Your task to perform on an android device: turn off notifications settings in the gmail app Image 0: 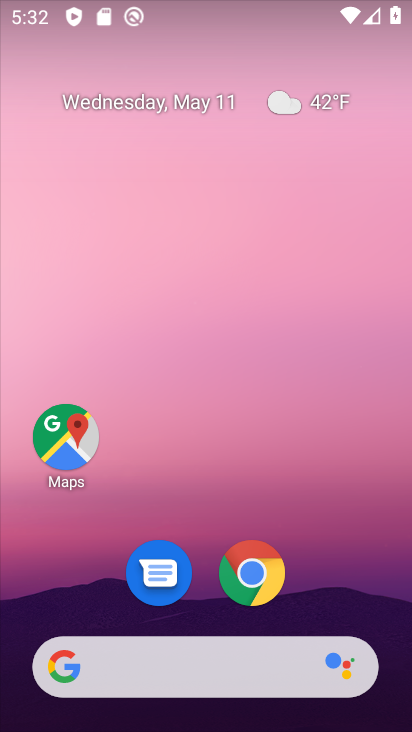
Step 0: drag from (316, 618) to (291, 238)
Your task to perform on an android device: turn off notifications settings in the gmail app Image 1: 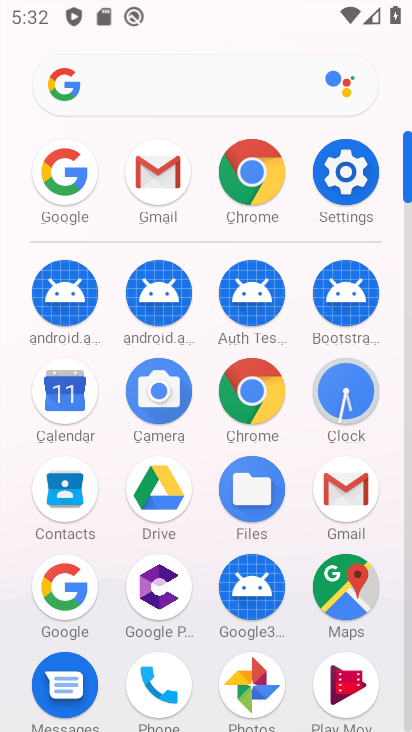
Step 1: click (336, 491)
Your task to perform on an android device: turn off notifications settings in the gmail app Image 2: 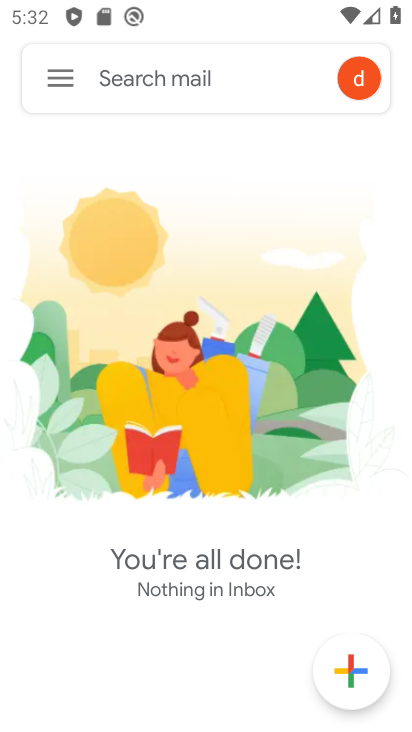
Step 2: click (60, 82)
Your task to perform on an android device: turn off notifications settings in the gmail app Image 3: 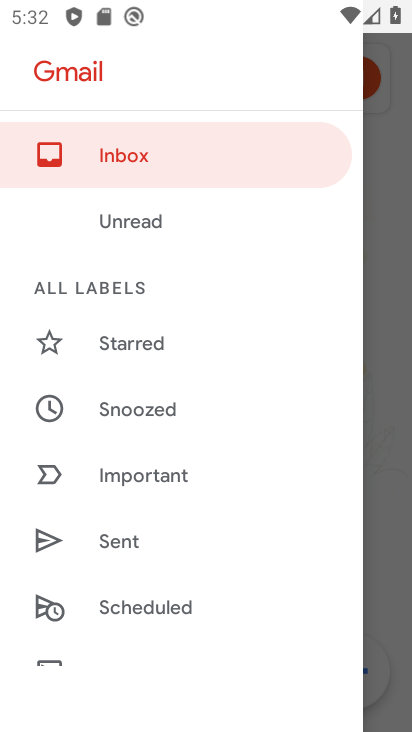
Step 3: drag from (181, 590) to (198, 255)
Your task to perform on an android device: turn off notifications settings in the gmail app Image 4: 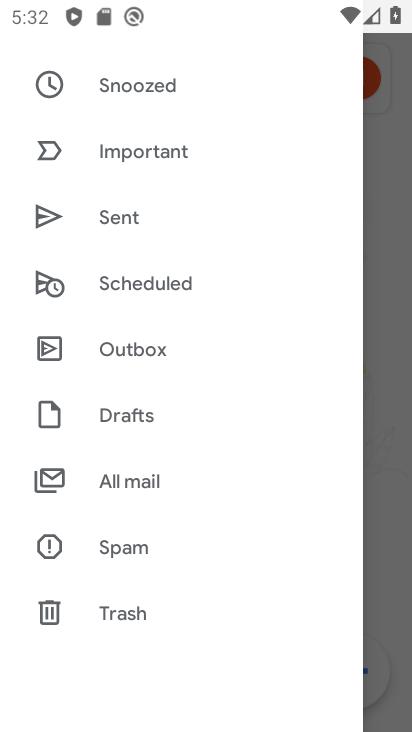
Step 4: click (189, 323)
Your task to perform on an android device: turn off notifications settings in the gmail app Image 5: 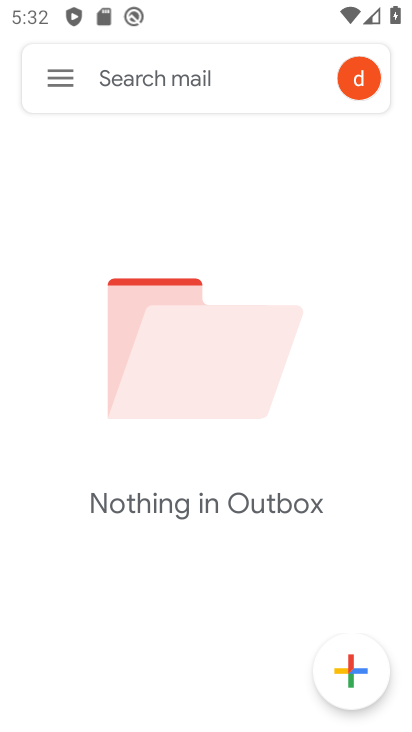
Step 5: click (61, 80)
Your task to perform on an android device: turn off notifications settings in the gmail app Image 6: 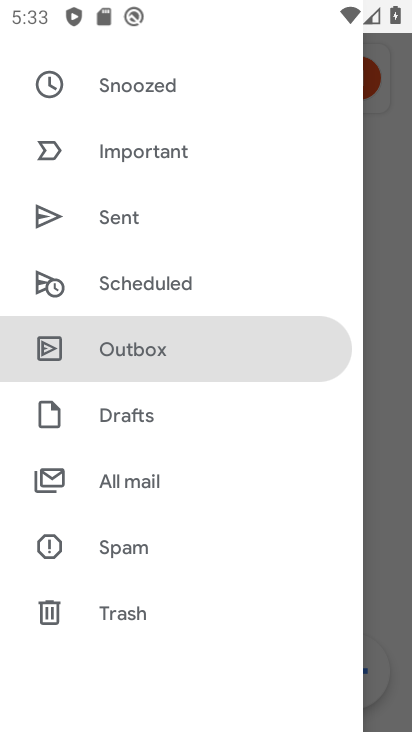
Step 6: drag from (163, 542) to (195, 290)
Your task to perform on an android device: turn off notifications settings in the gmail app Image 7: 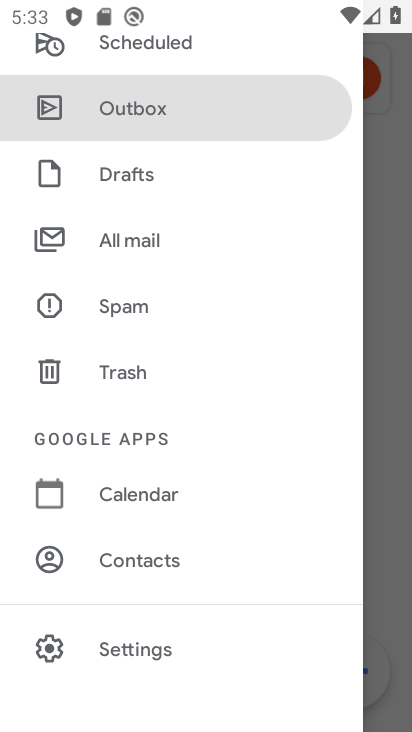
Step 7: click (184, 262)
Your task to perform on an android device: turn off notifications settings in the gmail app Image 8: 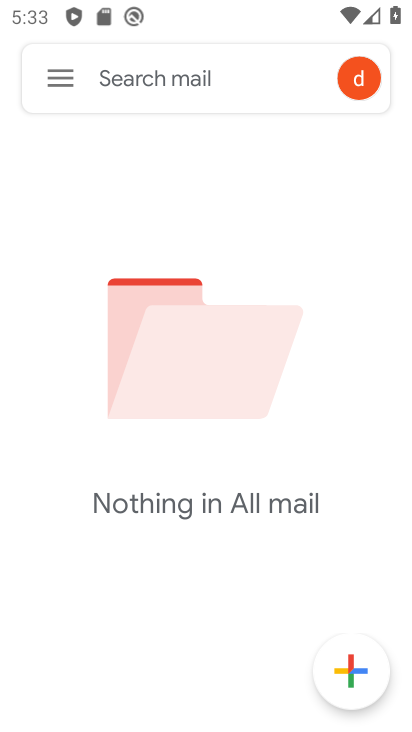
Step 8: click (62, 84)
Your task to perform on an android device: turn off notifications settings in the gmail app Image 9: 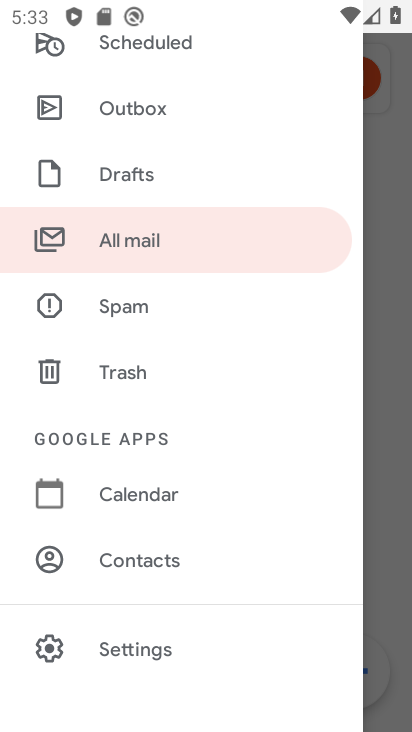
Step 9: click (137, 647)
Your task to perform on an android device: turn off notifications settings in the gmail app Image 10: 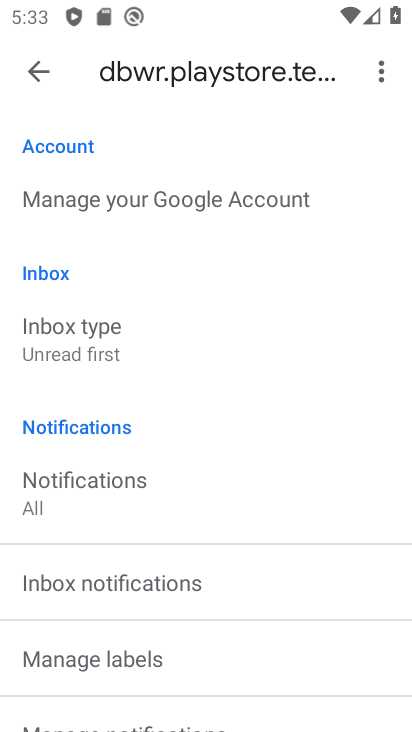
Step 10: click (85, 494)
Your task to perform on an android device: turn off notifications settings in the gmail app Image 11: 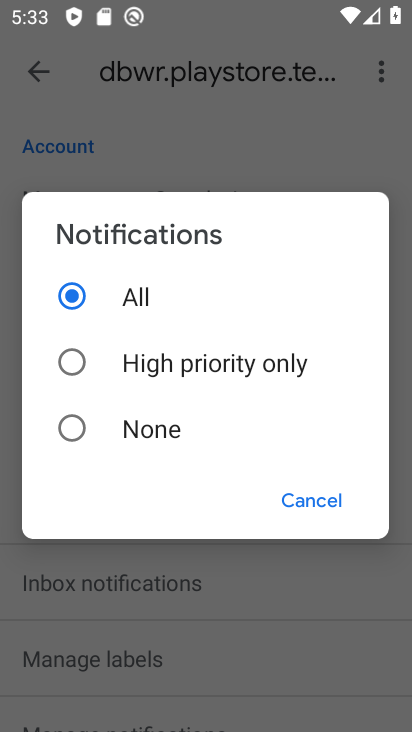
Step 11: click (76, 428)
Your task to perform on an android device: turn off notifications settings in the gmail app Image 12: 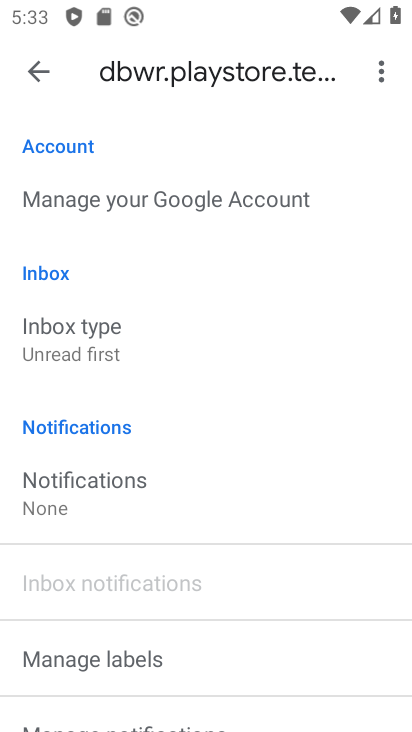
Step 12: task complete